Your task to perform on an android device: toggle priority inbox in the gmail app Image 0: 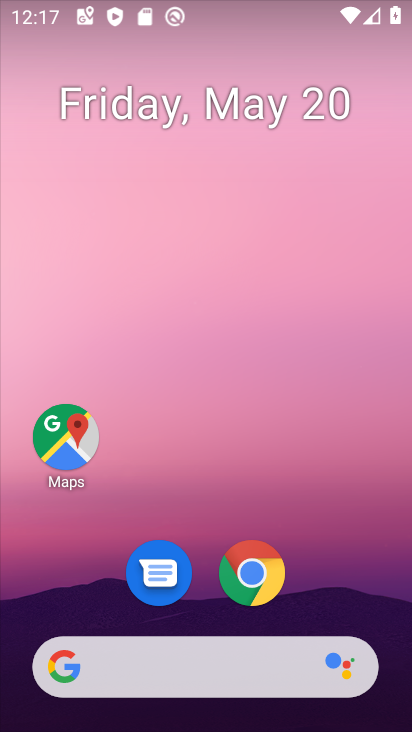
Step 0: drag from (344, 585) to (283, 30)
Your task to perform on an android device: toggle priority inbox in the gmail app Image 1: 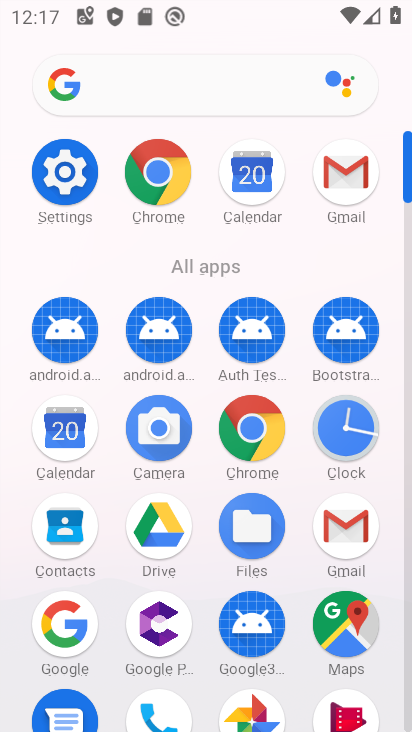
Step 1: click (338, 540)
Your task to perform on an android device: toggle priority inbox in the gmail app Image 2: 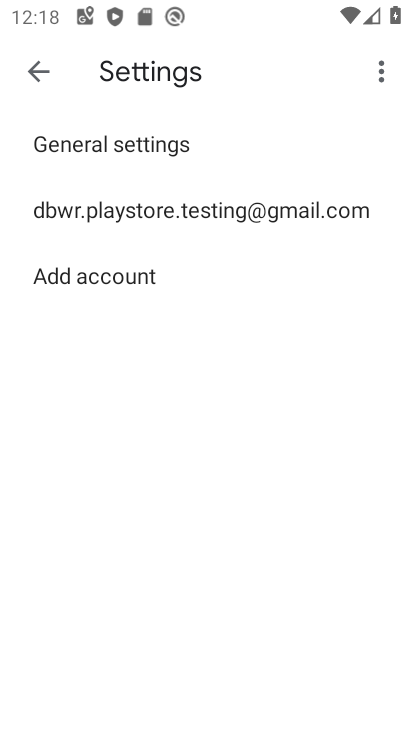
Step 2: click (64, 210)
Your task to perform on an android device: toggle priority inbox in the gmail app Image 3: 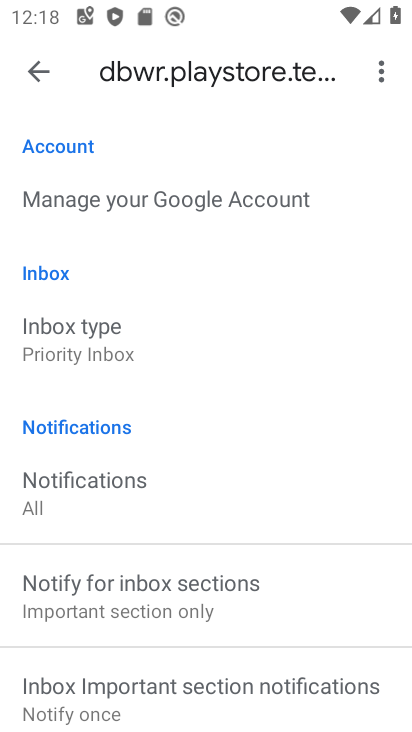
Step 3: click (104, 343)
Your task to perform on an android device: toggle priority inbox in the gmail app Image 4: 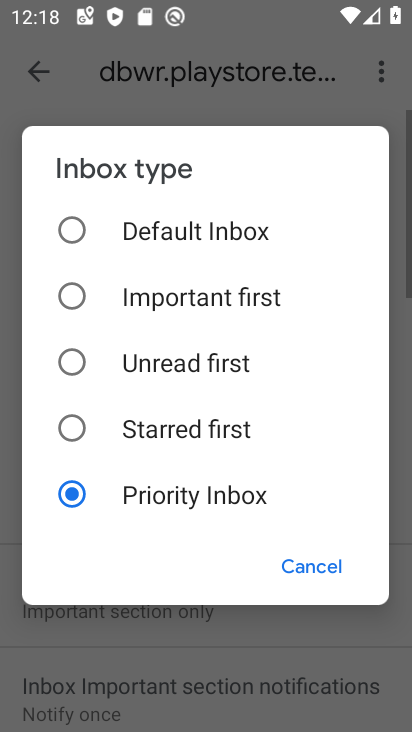
Step 4: click (176, 237)
Your task to perform on an android device: toggle priority inbox in the gmail app Image 5: 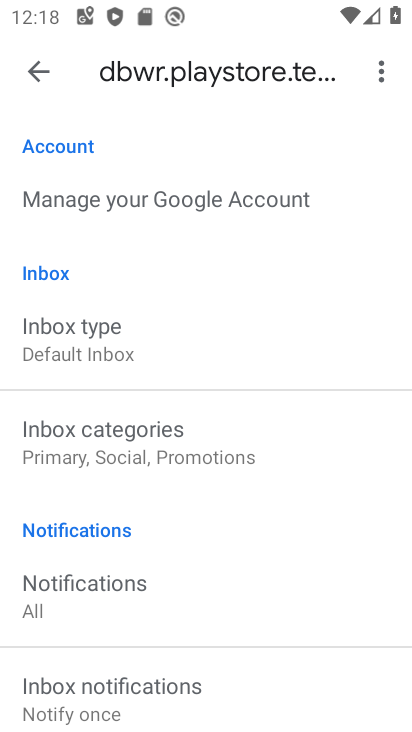
Step 5: task complete